Your task to perform on an android device: check the backup settings in the google photos Image 0: 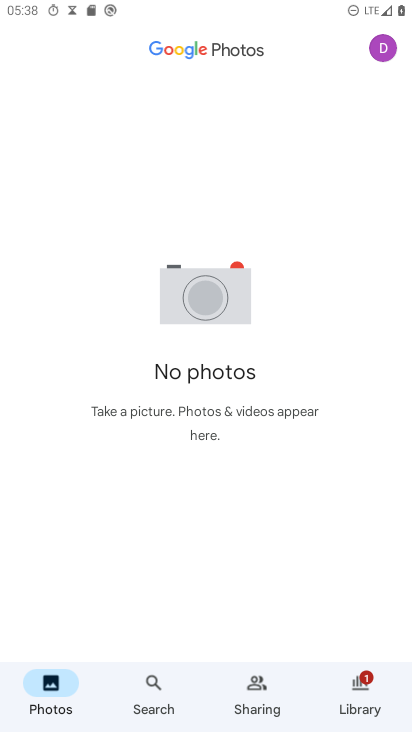
Step 0: click (389, 40)
Your task to perform on an android device: check the backup settings in the google photos Image 1: 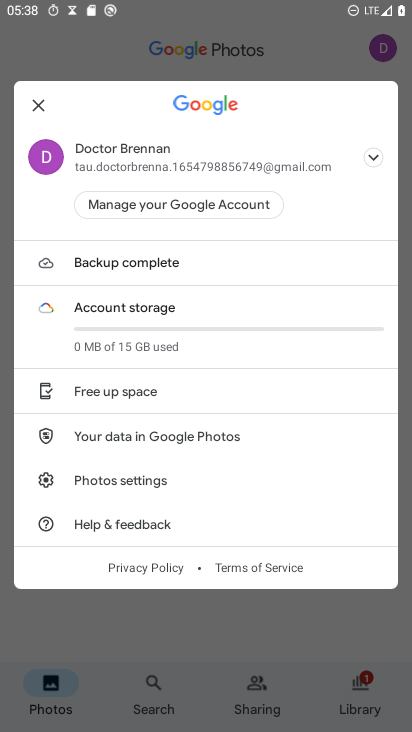
Step 1: click (151, 477)
Your task to perform on an android device: check the backup settings in the google photos Image 2: 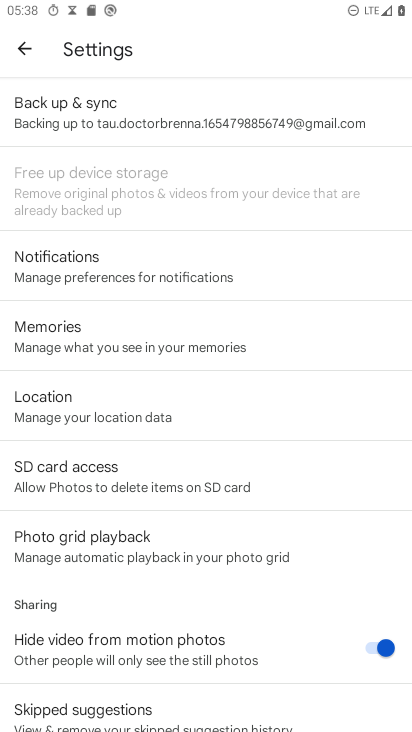
Step 2: click (176, 121)
Your task to perform on an android device: check the backup settings in the google photos Image 3: 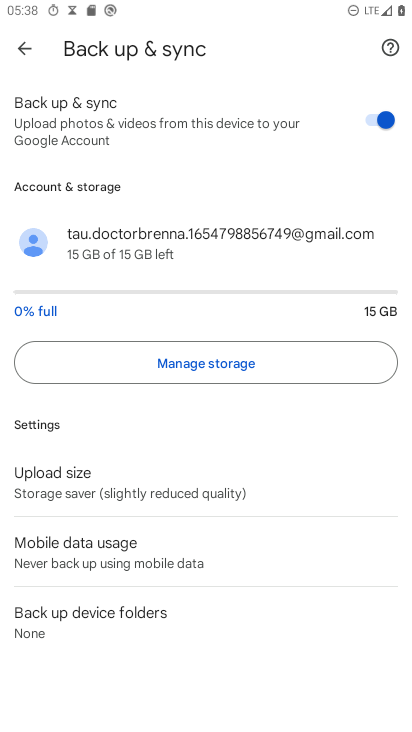
Step 3: task complete